Your task to perform on an android device: turn off sleep mode Image 0: 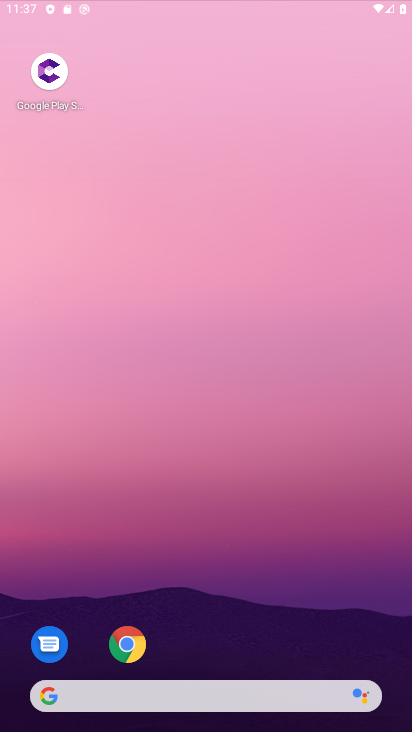
Step 0: click (140, 650)
Your task to perform on an android device: turn off sleep mode Image 1: 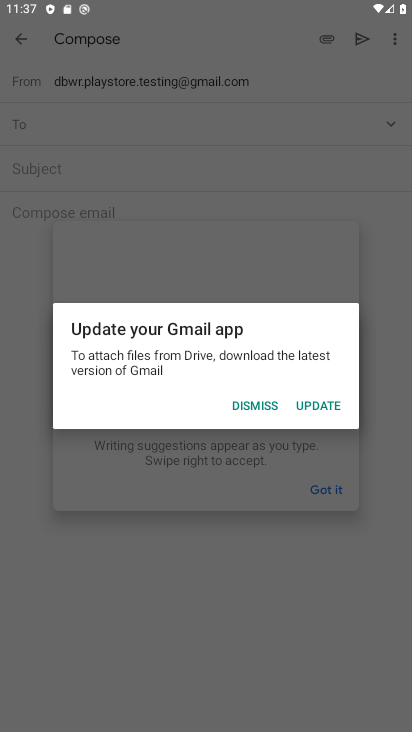
Step 1: press back button
Your task to perform on an android device: turn off sleep mode Image 2: 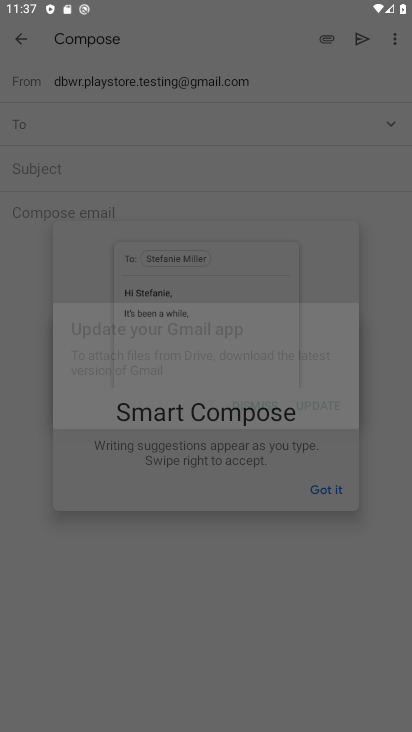
Step 2: press back button
Your task to perform on an android device: turn off sleep mode Image 3: 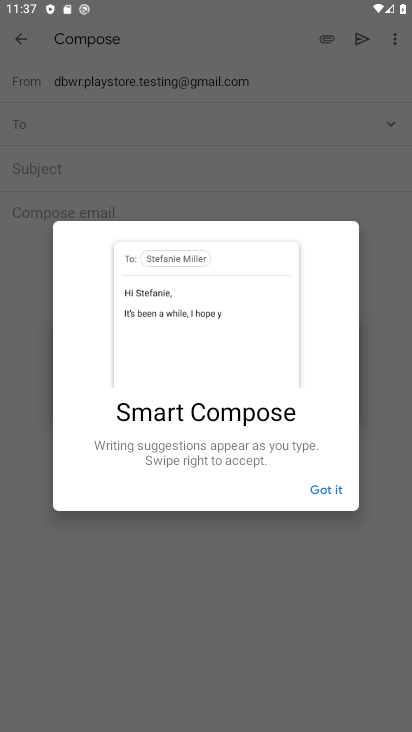
Step 3: press back button
Your task to perform on an android device: turn off sleep mode Image 4: 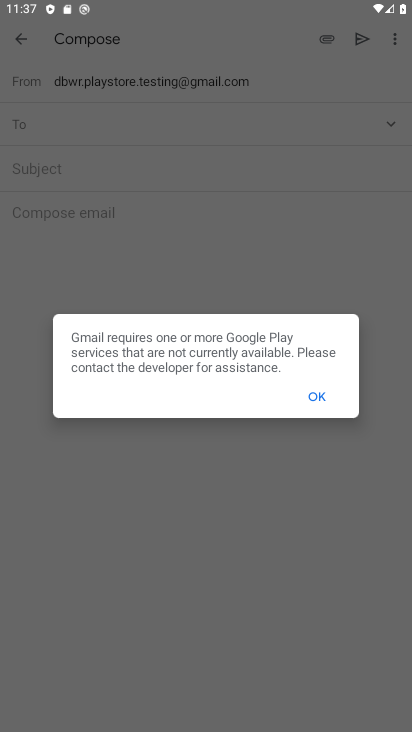
Step 4: press back button
Your task to perform on an android device: turn off sleep mode Image 5: 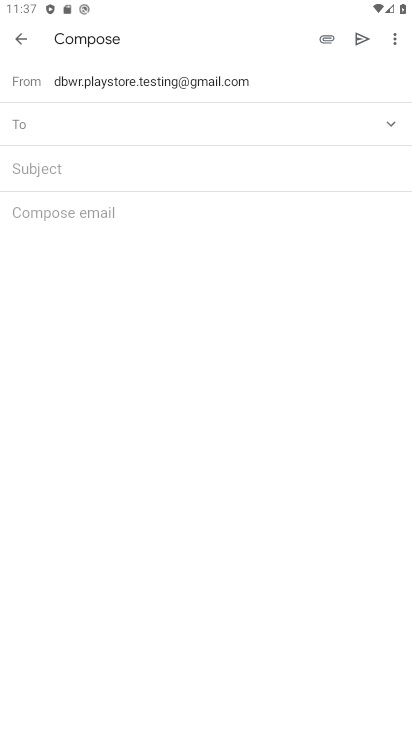
Step 5: press back button
Your task to perform on an android device: turn off sleep mode Image 6: 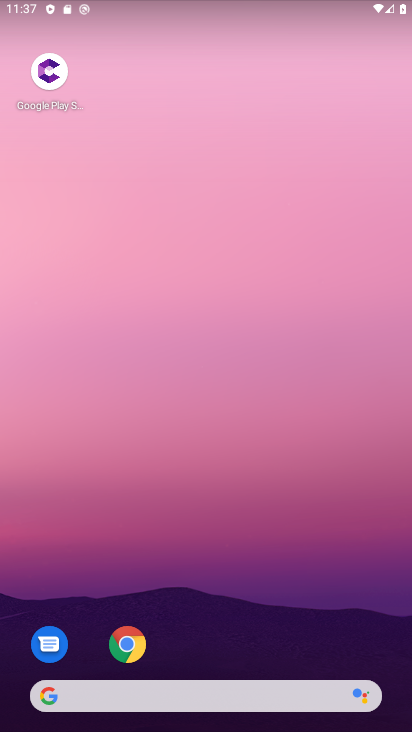
Step 6: drag from (178, 689) to (271, 145)
Your task to perform on an android device: turn off sleep mode Image 7: 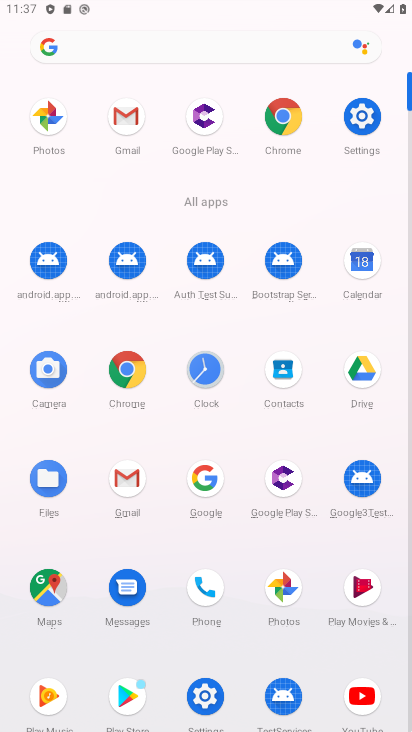
Step 7: drag from (168, 647) to (225, 407)
Your task to perform on an android device: turn off sleep mode Image 8: 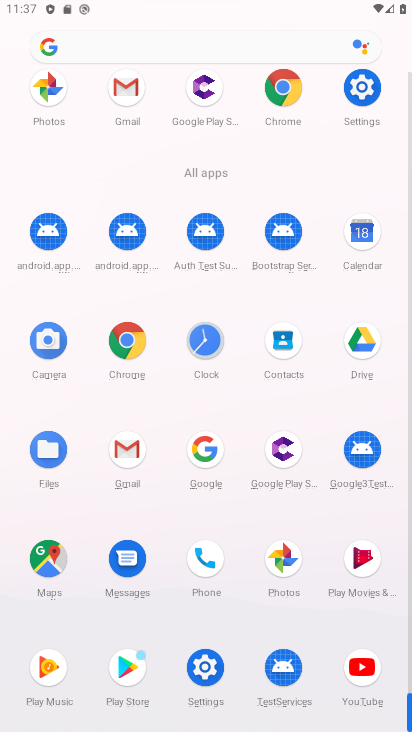
Step 8: click (196, 665)
Your task to perform on an android device: turn off sleep mode Image 9: 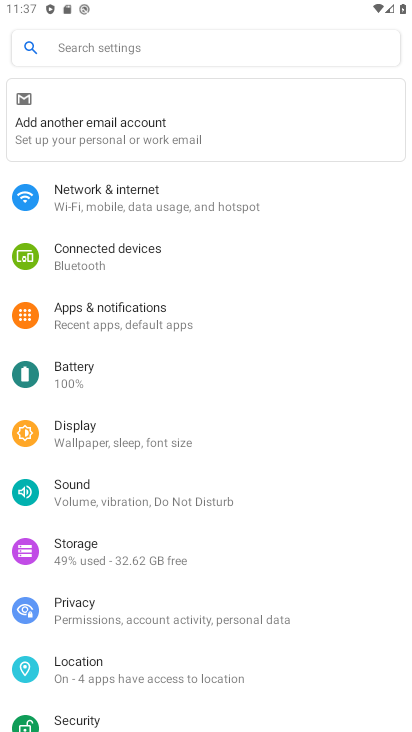
Step 9: click (126, 437)
Your task to perform on an android device: turn off sleep mode Image 10: 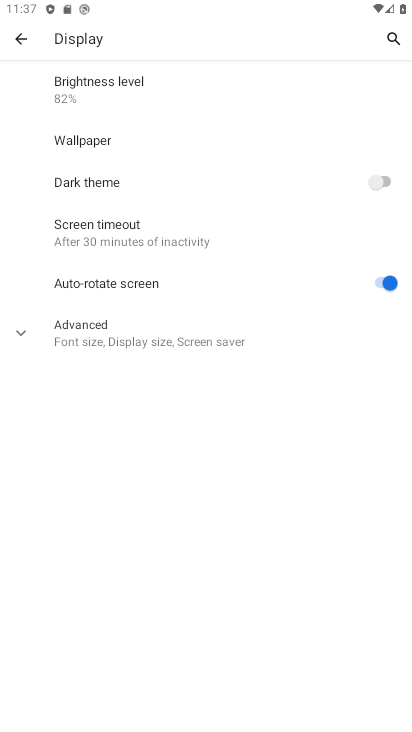
Step 10: click (144, 341)
Your task to perform on an android device: turn off sleep mode Image 11: 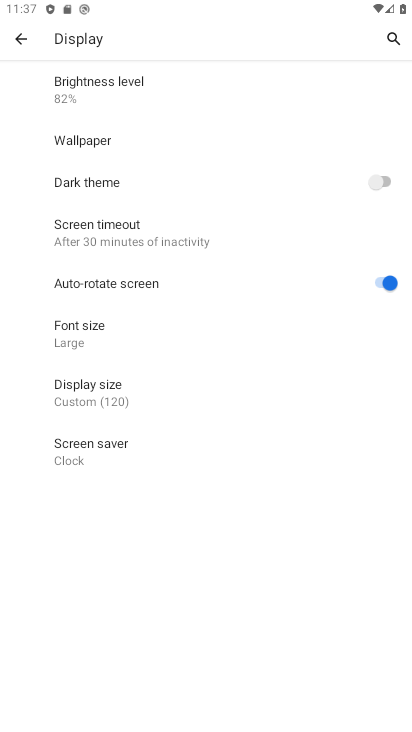
Step 11: task complete